Your task to perform on an android device: turn off translation in the chrome app Image 0: 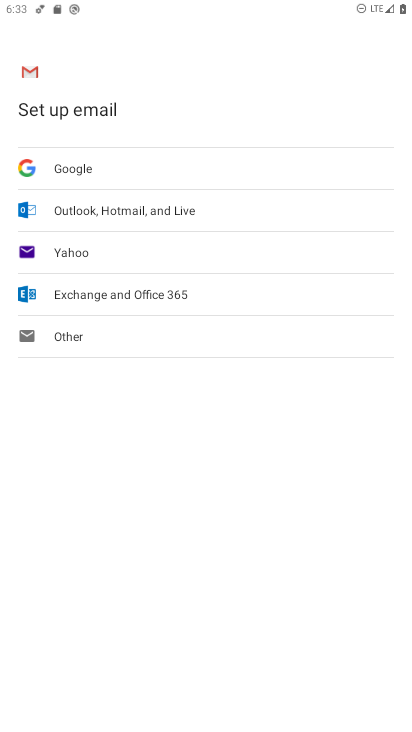
Step 0: press home button
Your task to perform on an android device: turn off translation in the chrome app Image 1: 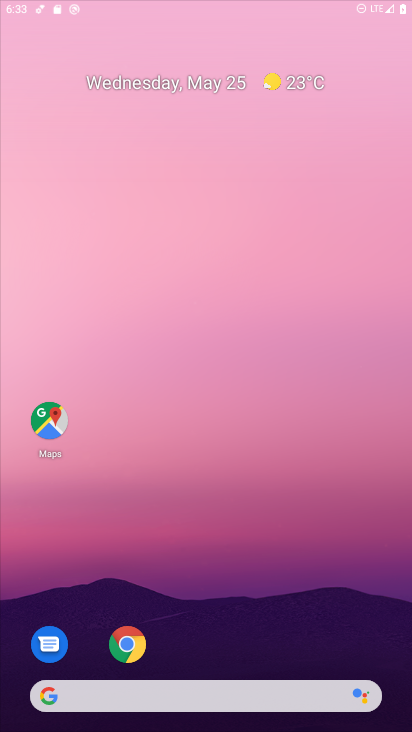
Step 1: drag from (365, 672) to (262, 7)
Your task to perform on an android device: turn off translation in the chrome app Image 2: 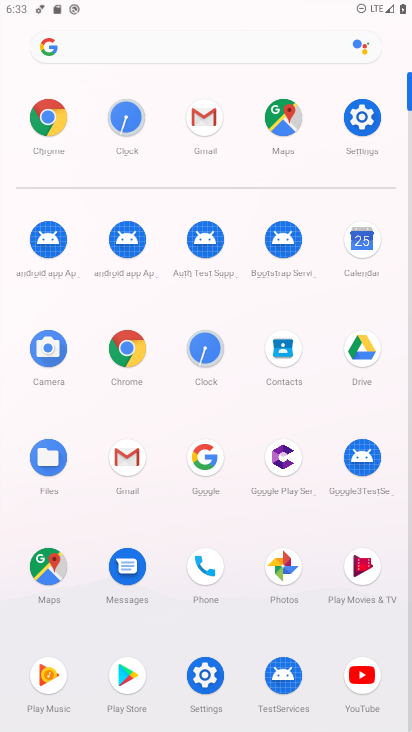
Step 2: click (123, 335)
Your task to perform on an android device: turn off translation in the chrome app Image 3: 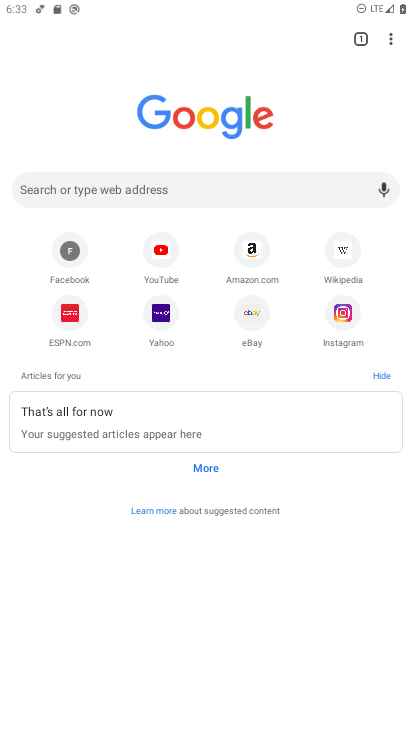
Step 3: click (381, 28)
Your task to perform on an android device: turn off translation in the chrome app Image 4: 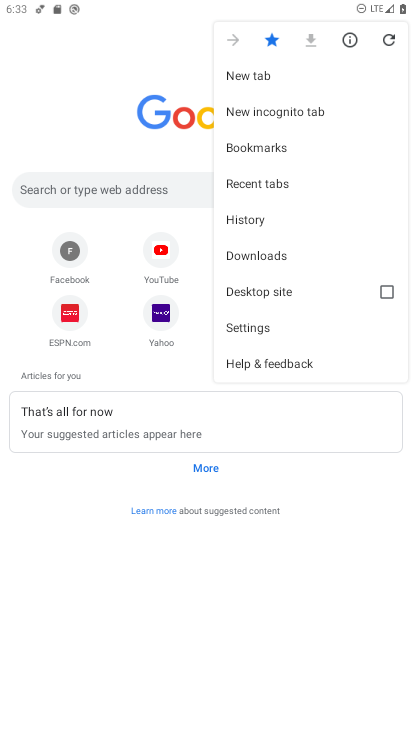
Step 4: click (287, 336)
Your task to perform on an android device: turn off translation in the chrome app Image 5: 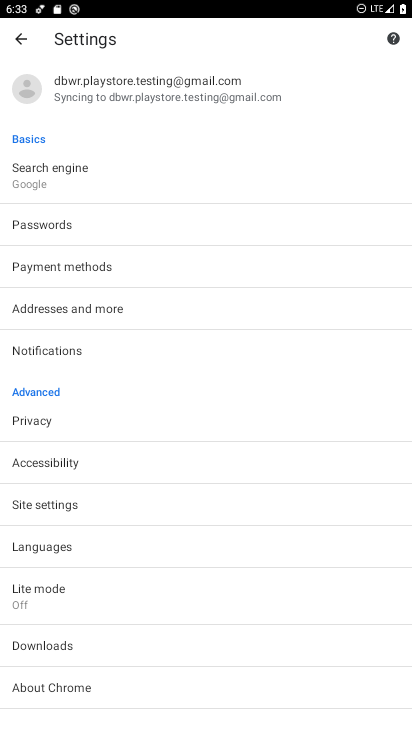
Step 5: click (71, 552)
Your task to perform on an android device: turn off translation in the chrome app Image 6: 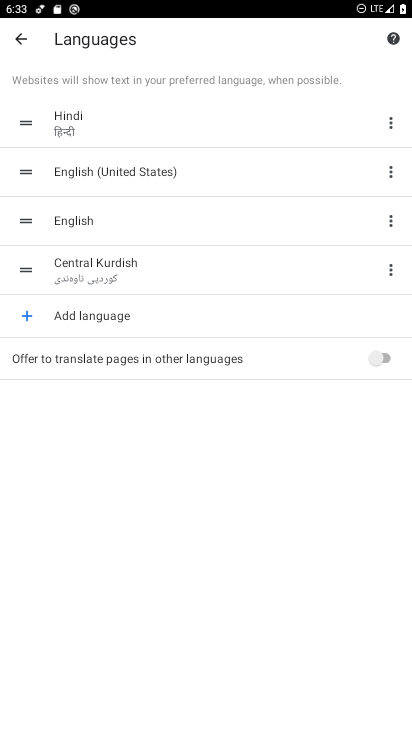
Step 6: task complete